Your task to perform on an android device: toggle wifi Image 0: 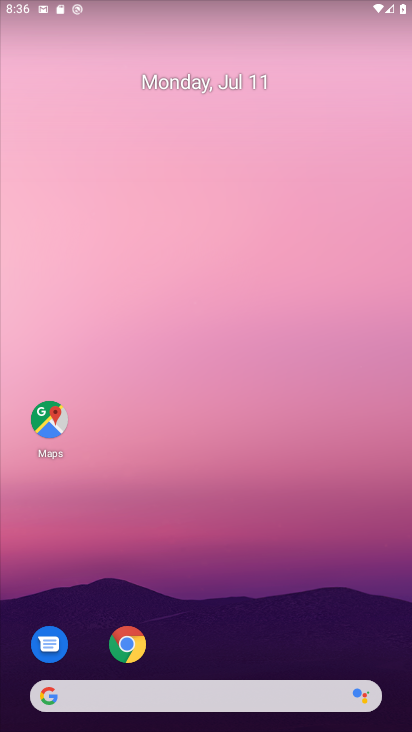
Step 0: drag from (188, 613) to (223, 366)
Your task to perform on an android device: toggle wifi Image 1: 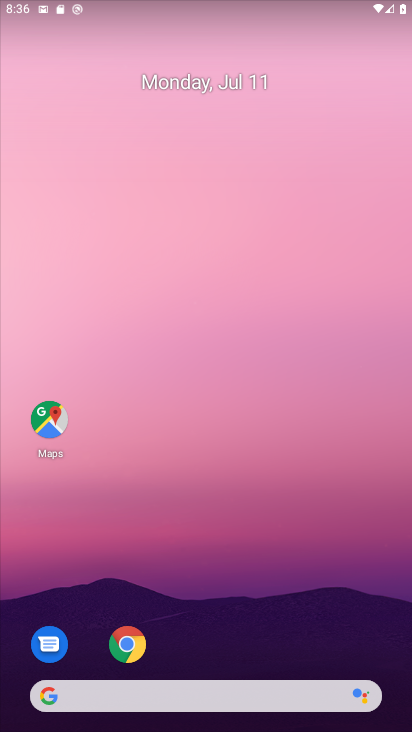
Step 1: drag from (283, 678) to (282, 200)
Your task to perform on an android device: toggle wifi Image 2: 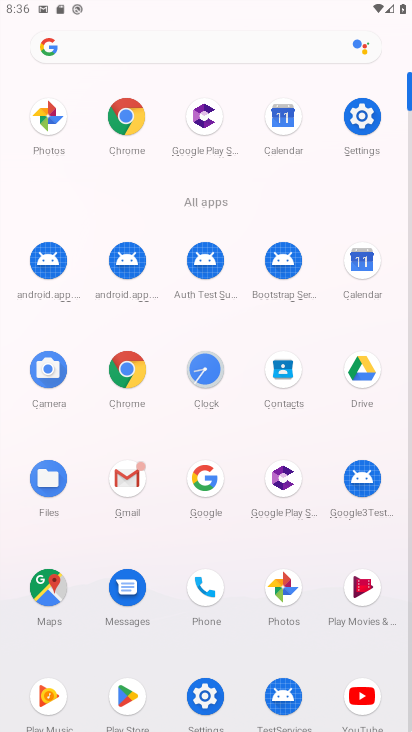
Step 2: click (373, 123)
Your task to perform on an android device: toggle wifi Image 3: 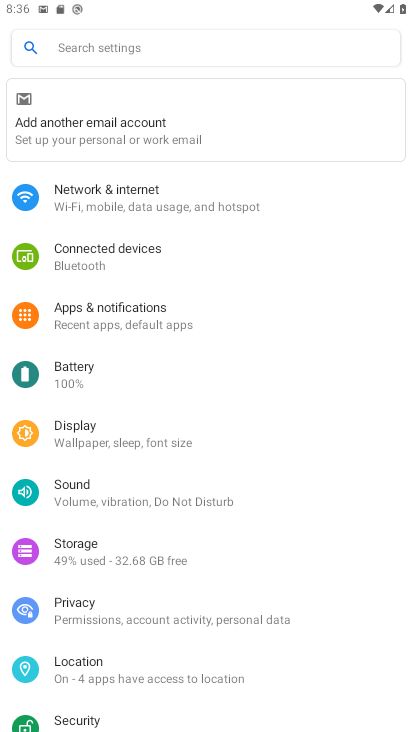
Step 3: click (180, 204)
Your task to perform on an android device: toggle wifi Image 4: 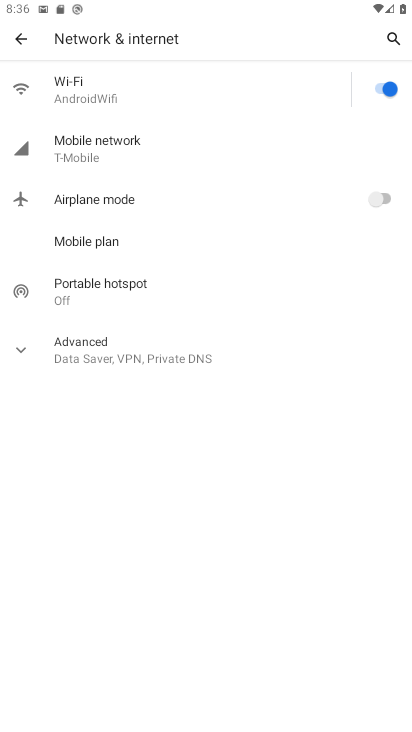
Step 4: click (384, 88)
Your task to perform on an android device: toggle wifi Image 5: 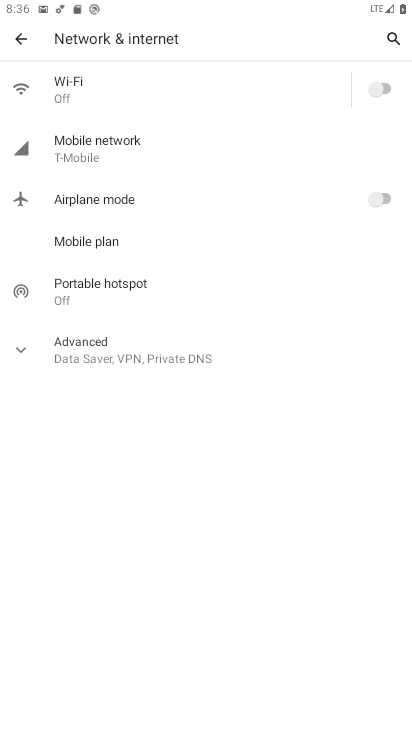
Step 5: task complete